Your task to perform on an android device: Go to Yahoo.com Image 0: 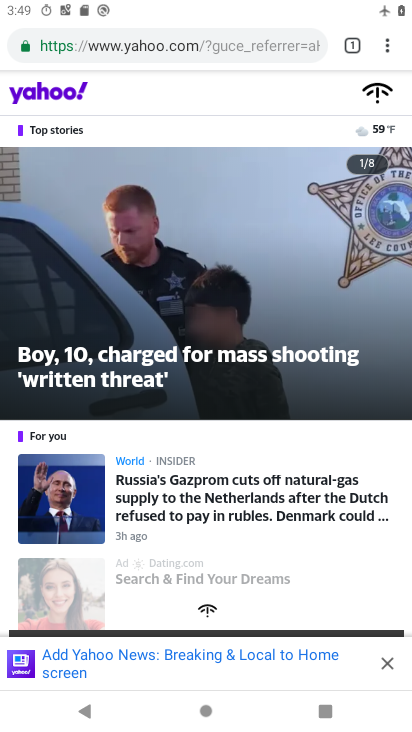
Step 0: press home button
Your task to perform on an android device: Go to Yahoo.com Image 1: 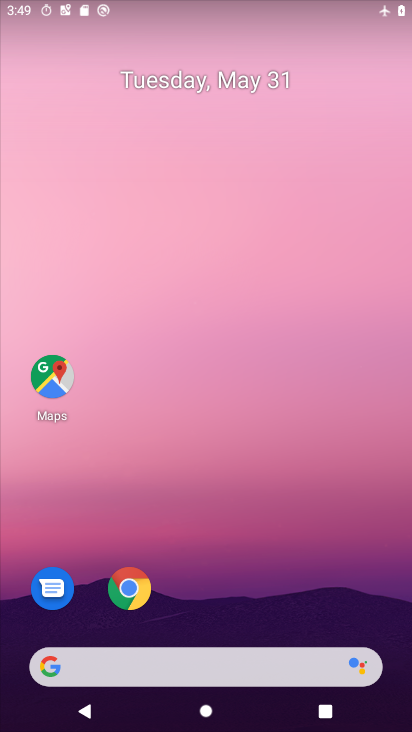
Step 1: drag from (252, 640) to (246, 147)
Your task to perform on an android device: Go to Yahoo.com Image 2: 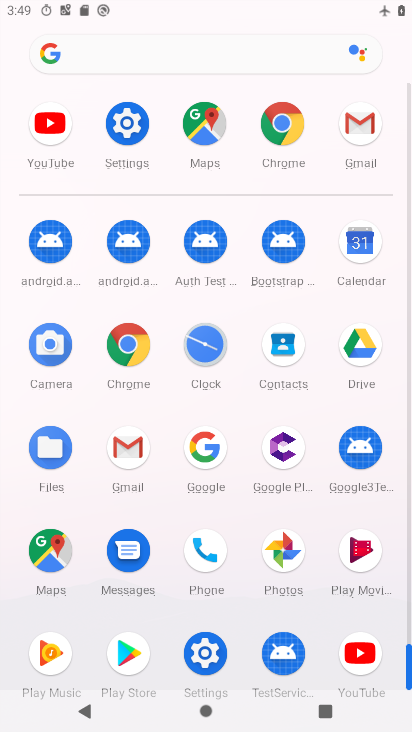
Step 2: click (285, 153)
Your task to perform on an android device: Go to Yahoo.com Image 3: 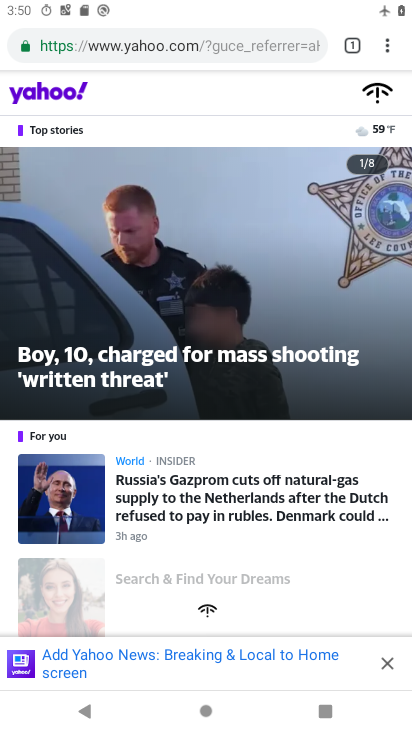
Step 3: task complete